Your task to perform on an android device: Search for Italian restaurants on Maps Image 0: 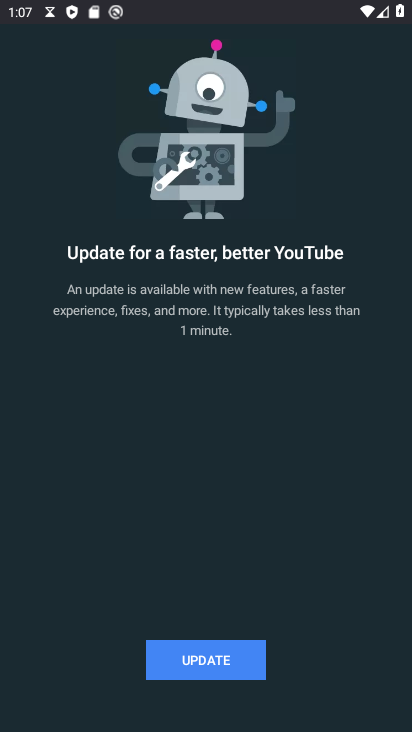
Step 0: press home button
Your task to perform on an android device: Search for Italian restaurants on Maps Image 1: 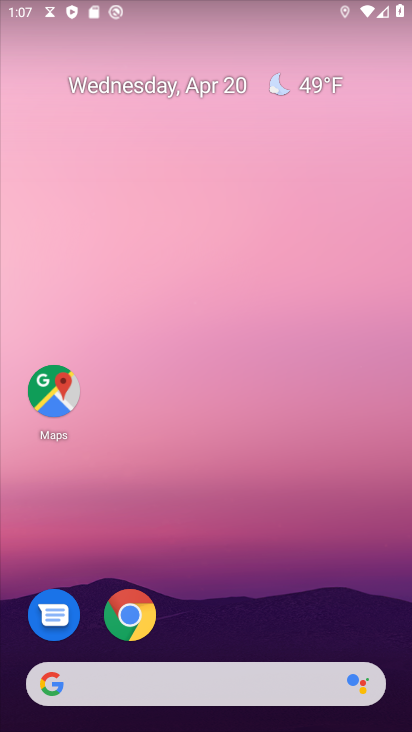
Step 1: click (53, 408)
Your task to perform on an android device: Search for Italian restaurants on Maps Image 2: 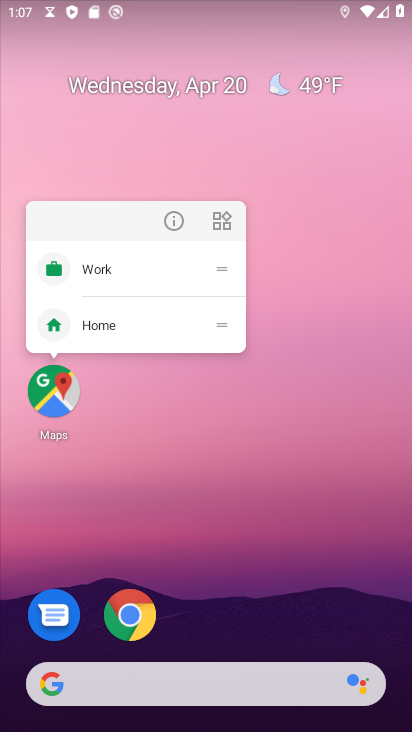
Step 2: click (56, 383)
Your task to perform on an android device: Search for Italian restaurants on Maps Image 3: 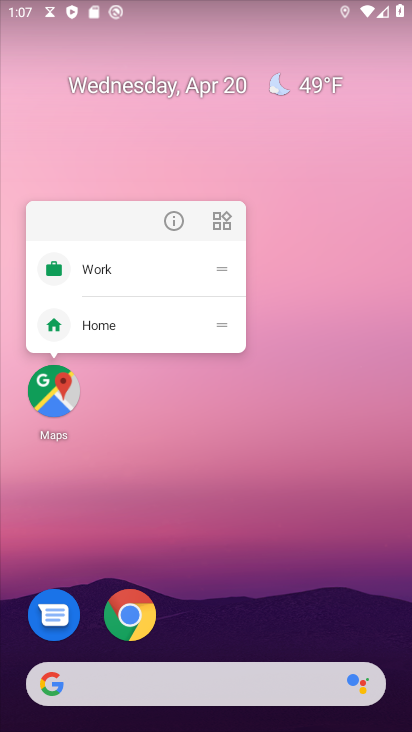
Step 3: click (56, 383)
Your task to perform on an android device: Search for Italian restaurants on Maps Image 4: 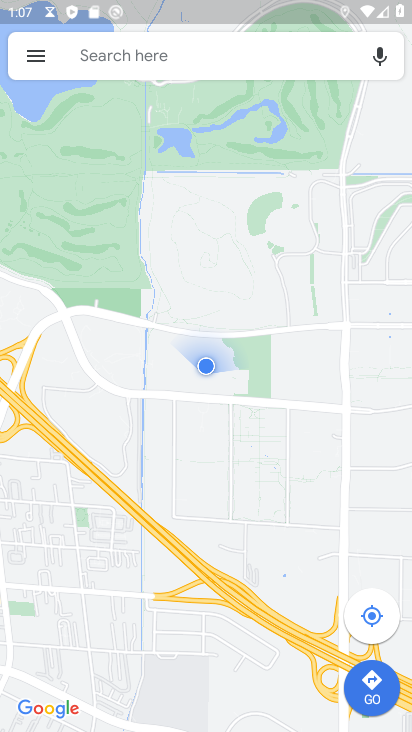
Step 4: click (222, 39)
Your task to perform on an android device: Search for Italian restaurants on Maps Image 5: 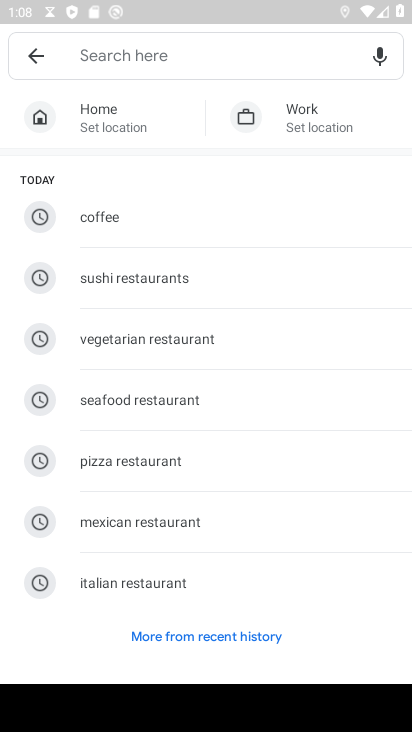
Step 5: click (148, 589)
Your task to perform on an android device: Search for Italian restaurants on Maps Image 6: 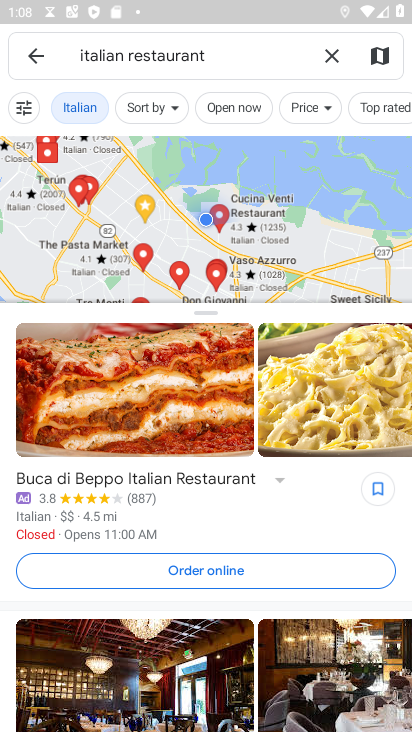
Step 6: task complete